Your task to perform on an android device: read, delete, or share a saved page in the chrome app Image 0: 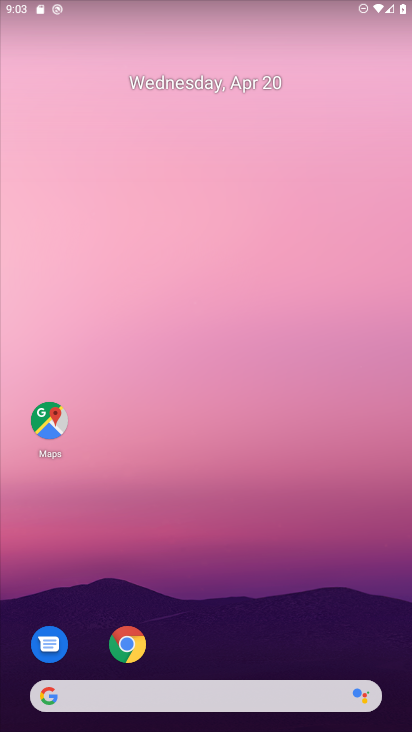
Step 0: drag from (372, 620) to (261, 85)
Your task to perform on an android device: read, delete, or share a saved page in the chrome app Image 1: 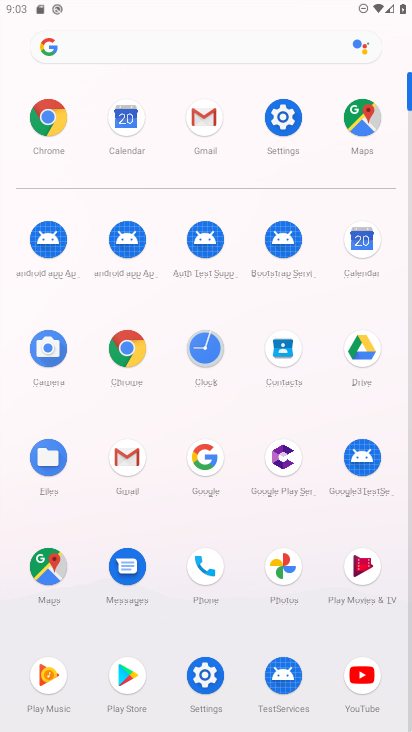
Step 1: click (137, 352)
Your task to perform on an android device: read, delete, or share a saved page in the chrome app Image 2: 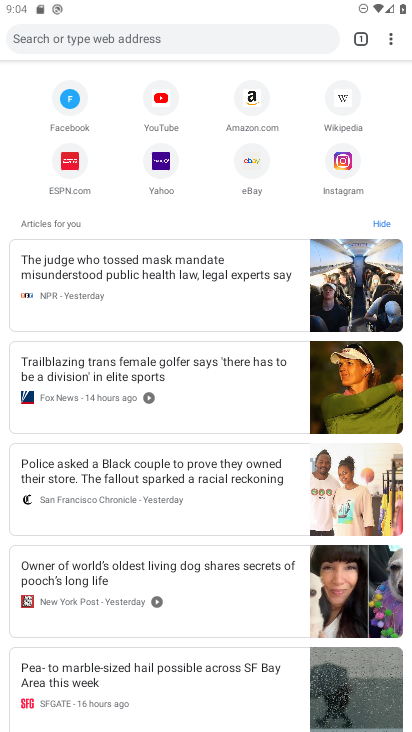
Step 2: task complete